Your task to perform on an android device: find which apps use the phone's location Image 0: 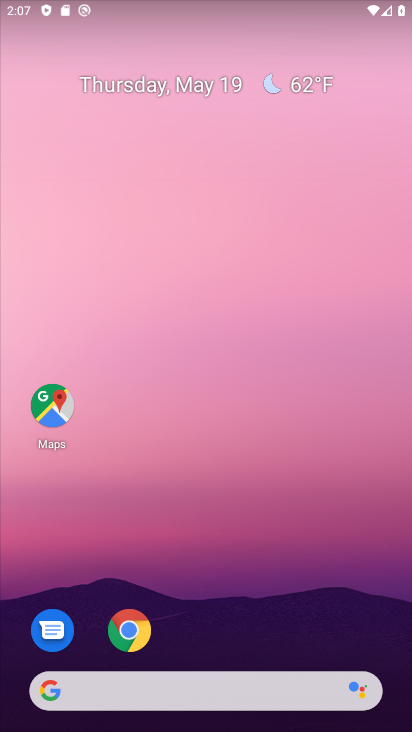
Step 0: drag from (378, 583) to (293, 73)
Your task to perform on an android device: find which apps use the phone's location Image 1: 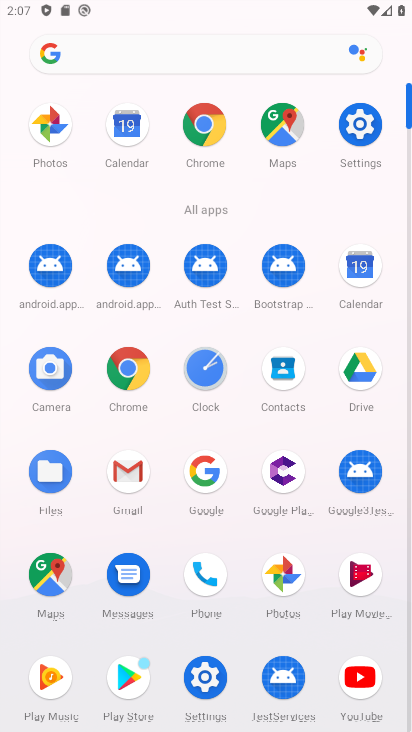
Step 1: click (213, 691)
Your task to perform on an android device: find which apps use the phone's location Image 2: 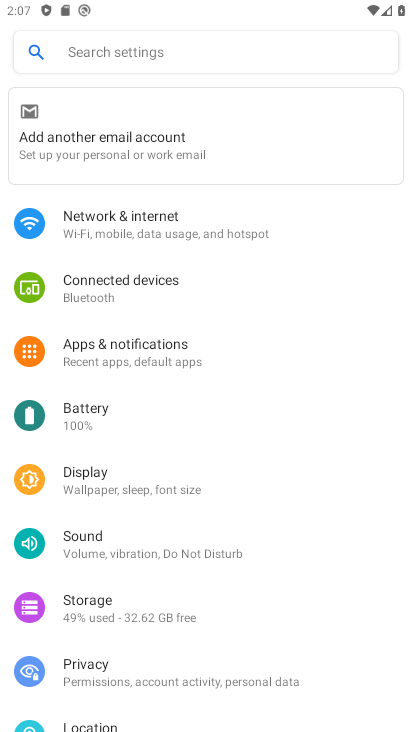
Step 2: drag from (348, 645) to (332, 358)
Your task to perform on an android device: find which apps use the phone's location Image 3: 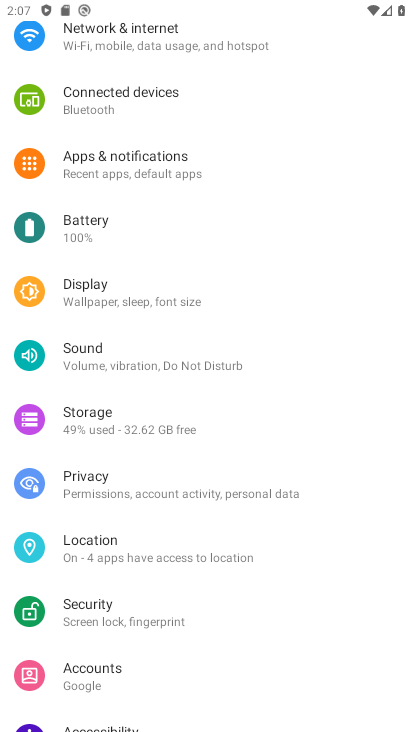
Step 3: click (164, 562)
Your task to perform on an android device: find which apps use the phone's location Image 4: 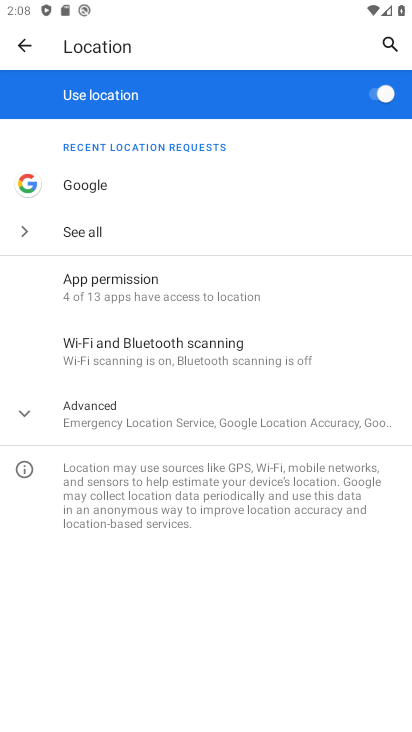
Step 4: click (279, 420)
Your task to perform on an android device: find which apps use the phone's location Image 5: 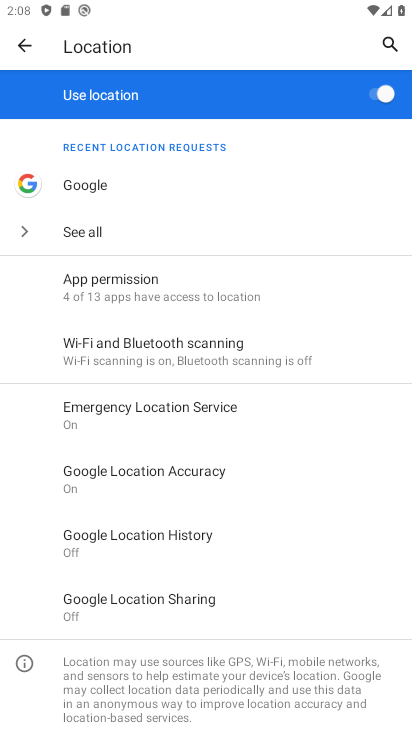
Step 5: task complete